Your task to perform on an android device: Search for pizza restaurants on Maps Image 0: 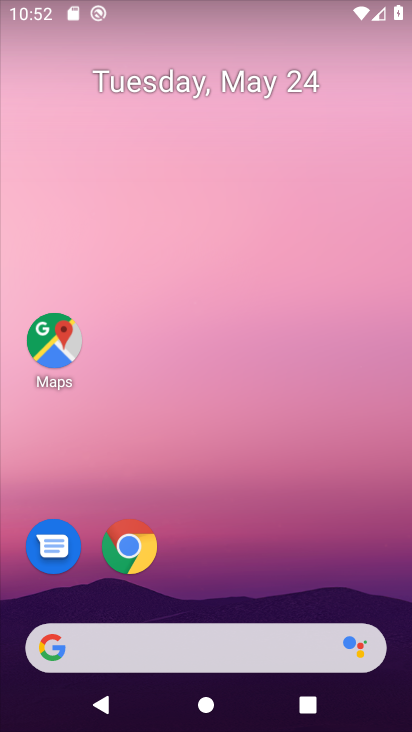
Step 0: click (59, 350)
Your task to perform on an android device: Search for pizza restaurants on Maps Image 1: 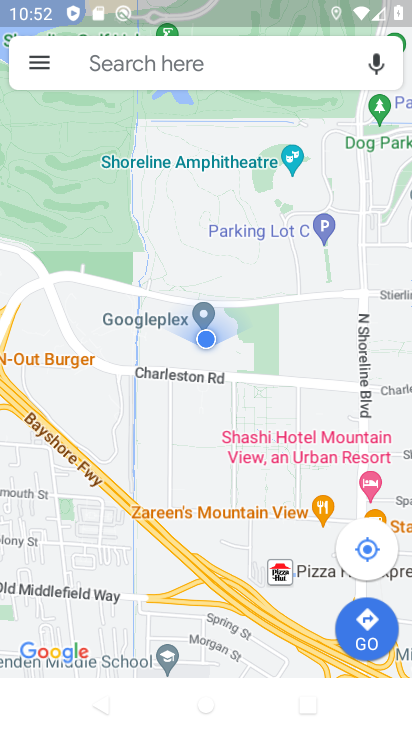
Step 1: click (82, 60)
Your task to perform on an android device: Search for pizza restaurants on Maps Image 2: 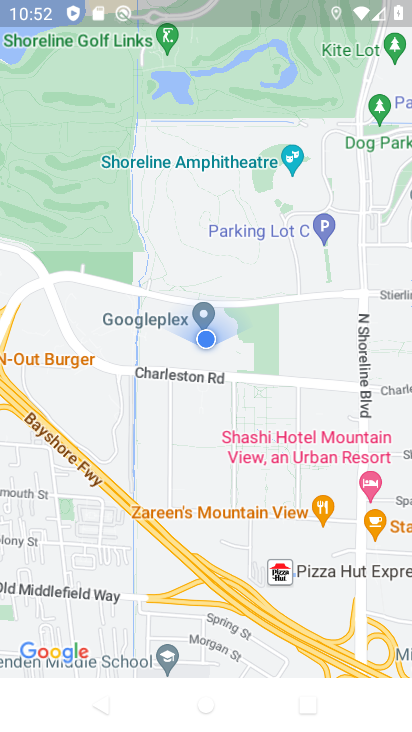
Step 2: drag from (165, 145) to (186, 396)
Your task to perform on an android device: Search for pizza restaurants on Maps Image 3: 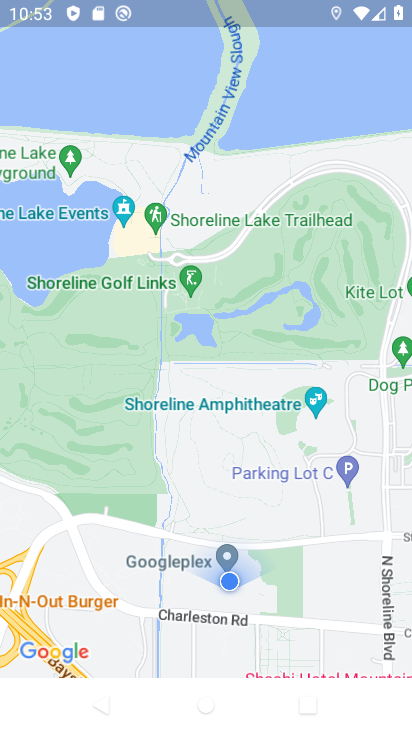
Step 3: press back button
Your task to perform on an android device: Search for pizza restaurants on Maps Image 4: 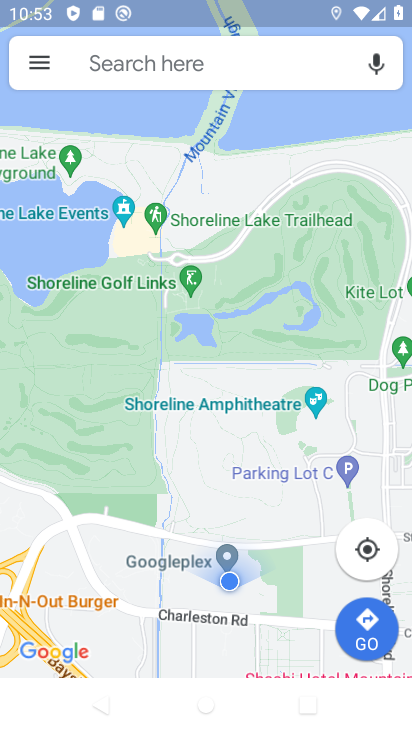
Step 4: click (151, 69)
Your task to perform on an android device: Search for pizza restaurants on Maps Image 5: 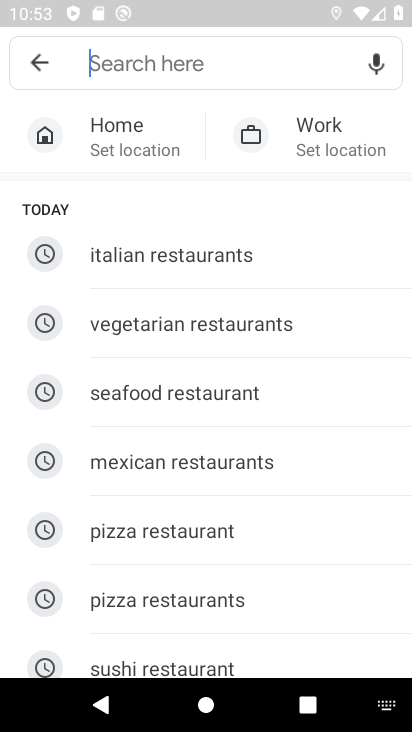
Step 5: click (144, 545)
Your task to perform on an android device: Search for pizza restaurants on Maps Image 6: 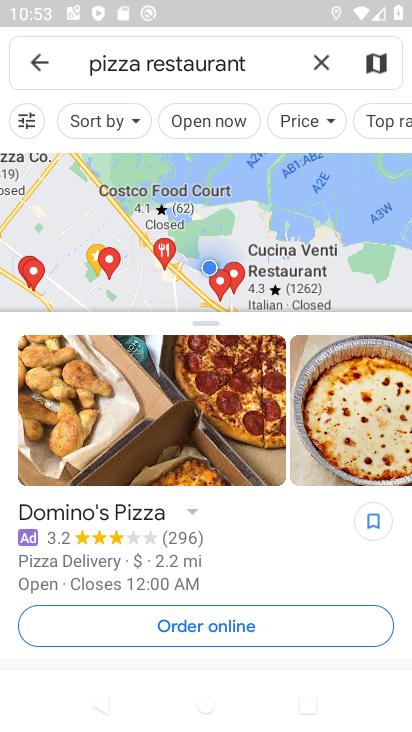
Step 6: task complete